Your task to perform on an android device: change your default location settings in chrome Image 0: 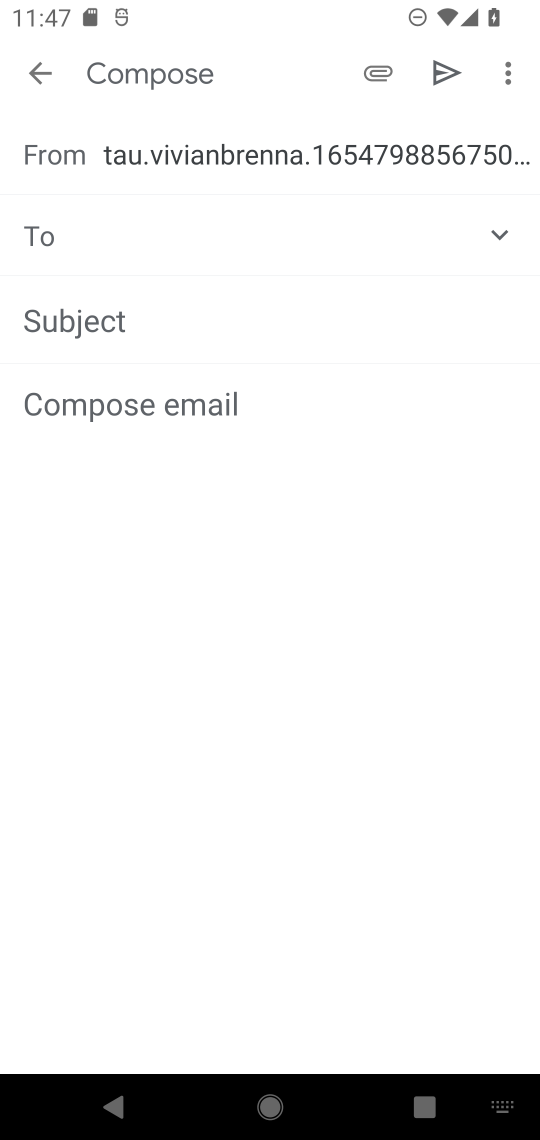
Step 0: press home button
Your task to perform on an android device: change your default location settings in chrome Image 1: 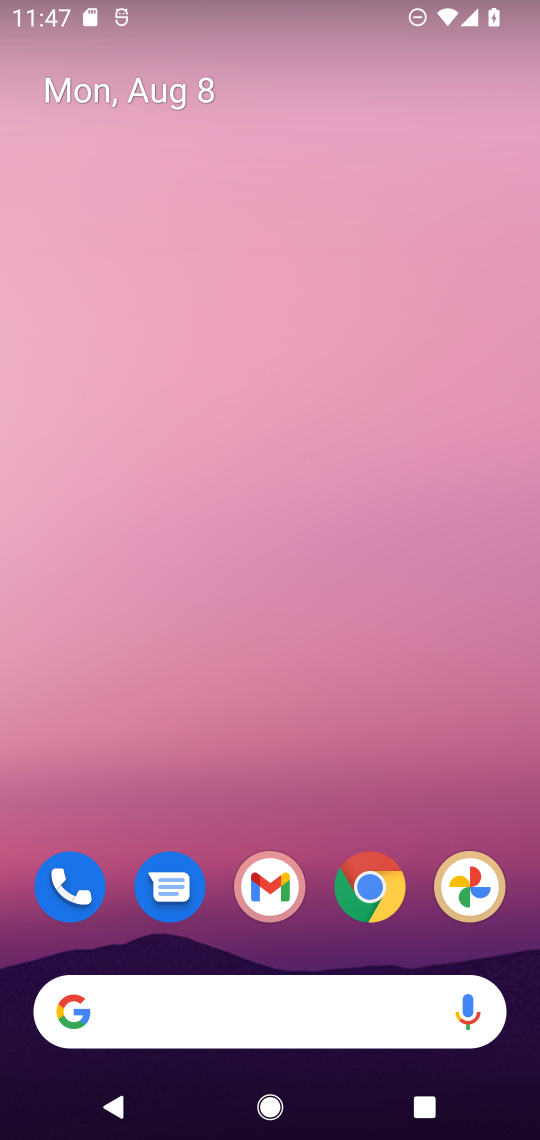
Step 1: click (374, 888)
Your task to perform on an android device: change your default location settings in chrome Image 2: 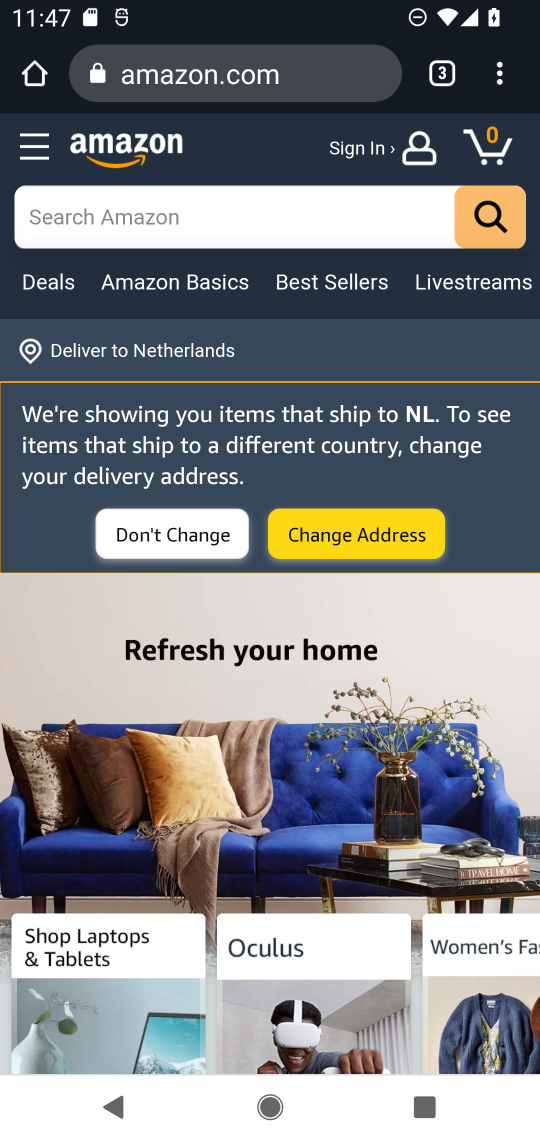
Step 2: click (508, 75)
Your task to perform on an android device: change your default location settings in chrome Image 3: 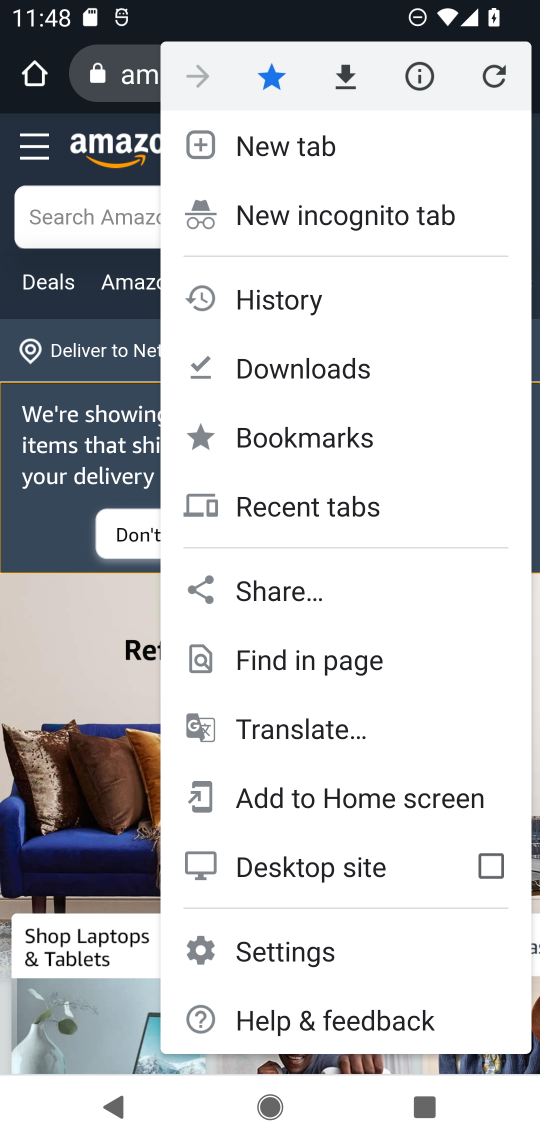
Step 3: click (302, 953)
Your task to perform on an android device: change your default location settings in chrome Image 4: 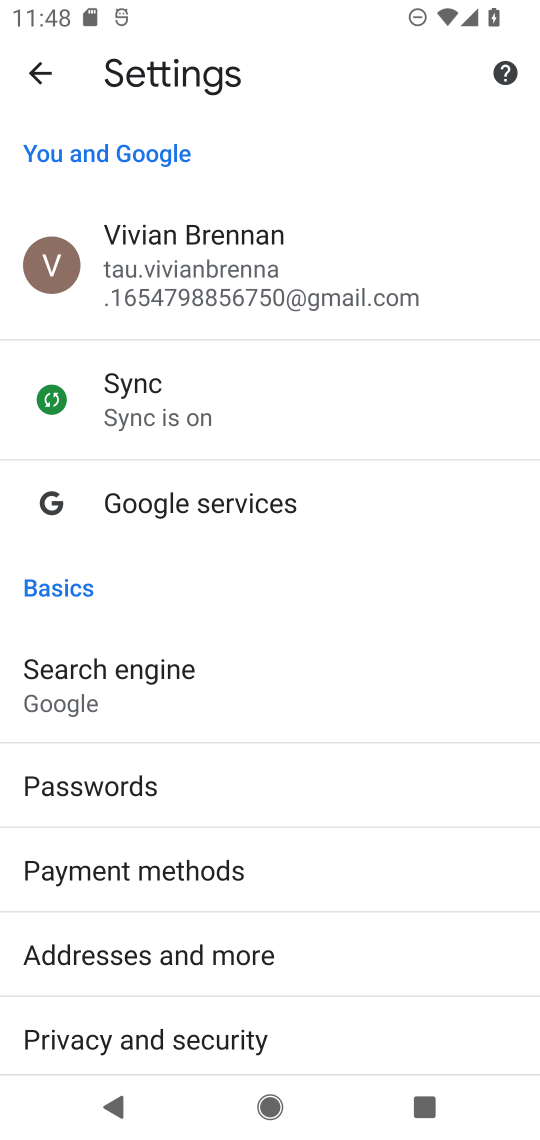
Step 4: drag from (433, 844) to (394, 453)
Your task to perform on an android device: change your default location settings in chrome Image 5: 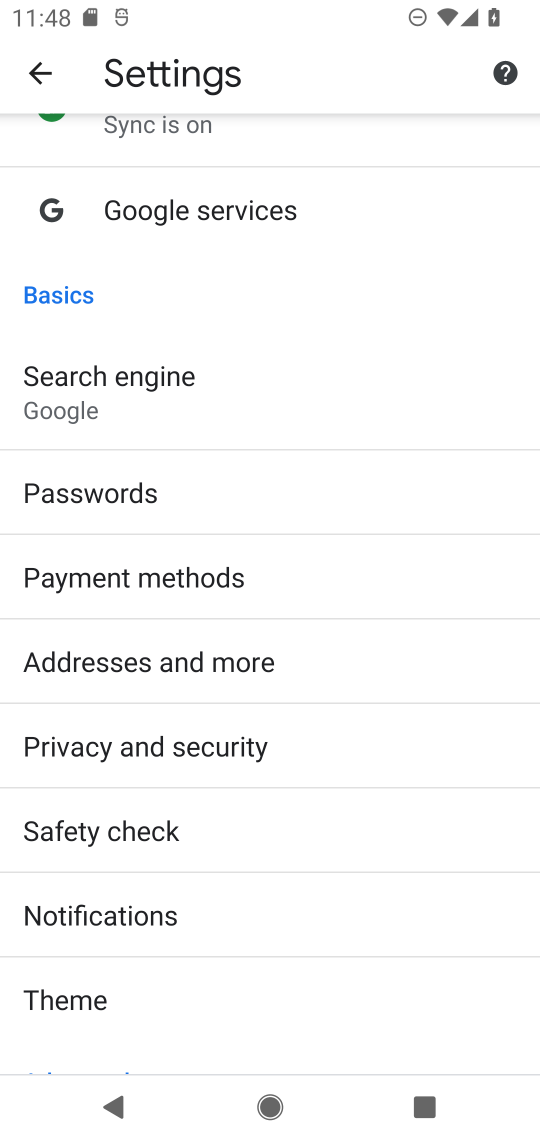
Step 5: drag from (334, 905) to (260, 228)
Your task to perform on an android device: change your default location settings in chrome Image 6: 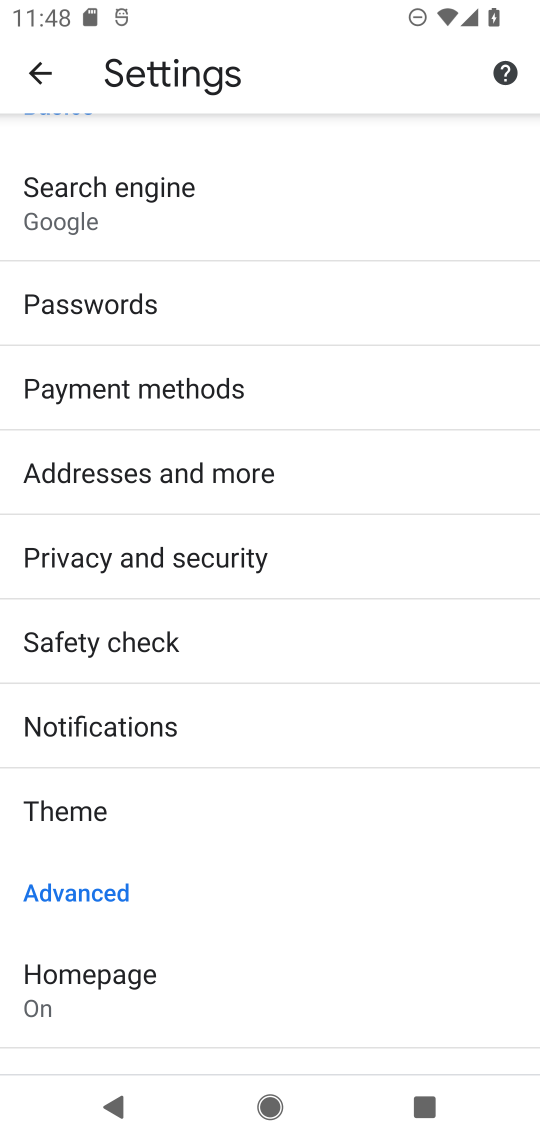
Step 6: drag from (273, 803) to (241, 318)
Your task to perform on an android device: change your default location settings in chrome Image 7: 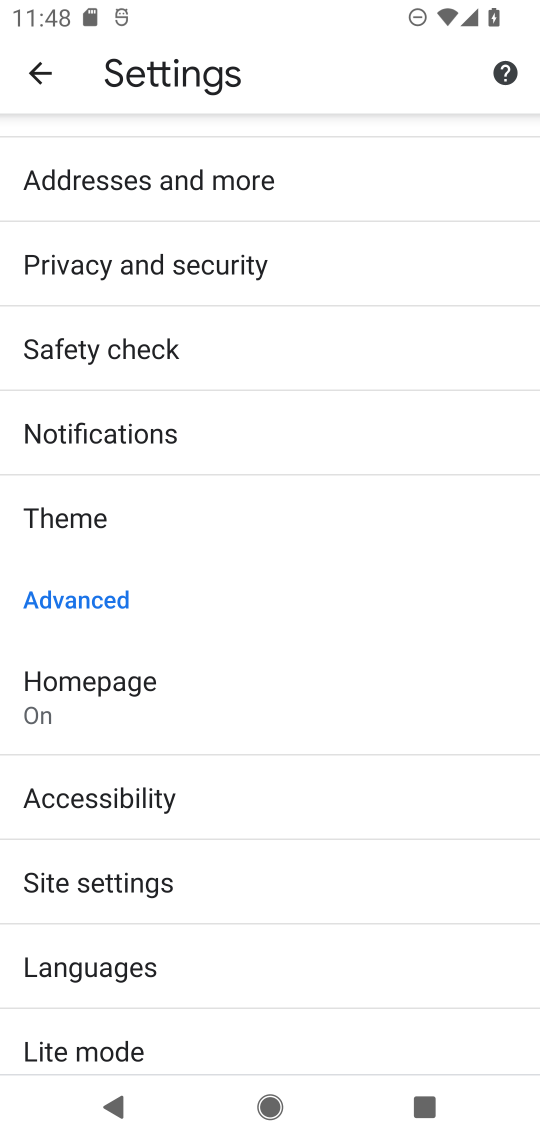
Step 7: click (104, 876)
Your task to perform on an android device: change your default location settings in chrome Image 8: 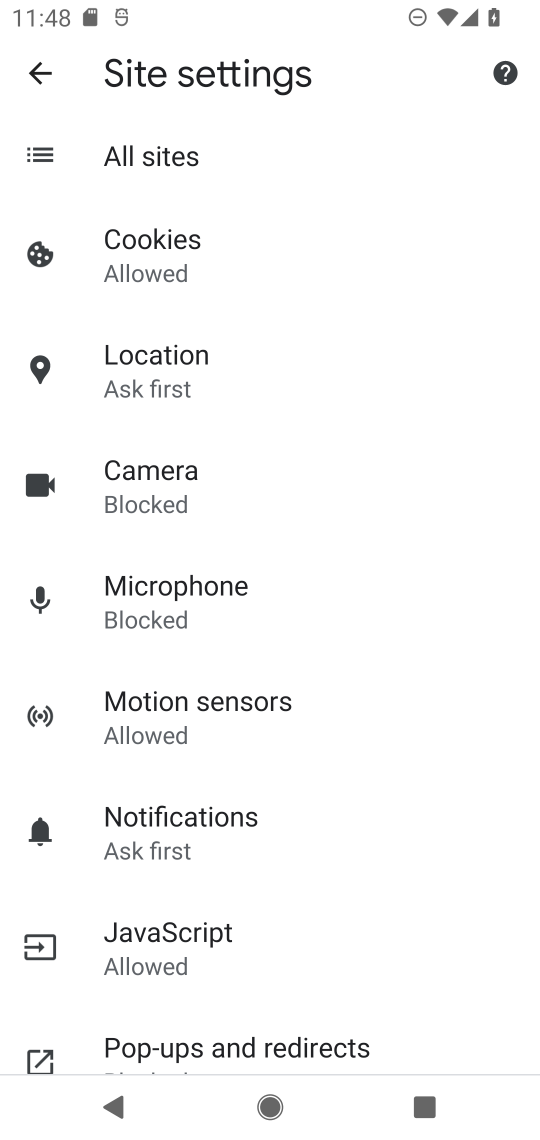
Step 8: click (138, 357)
Your task to perform on an android device: change your default location settings in chrome Image 9: 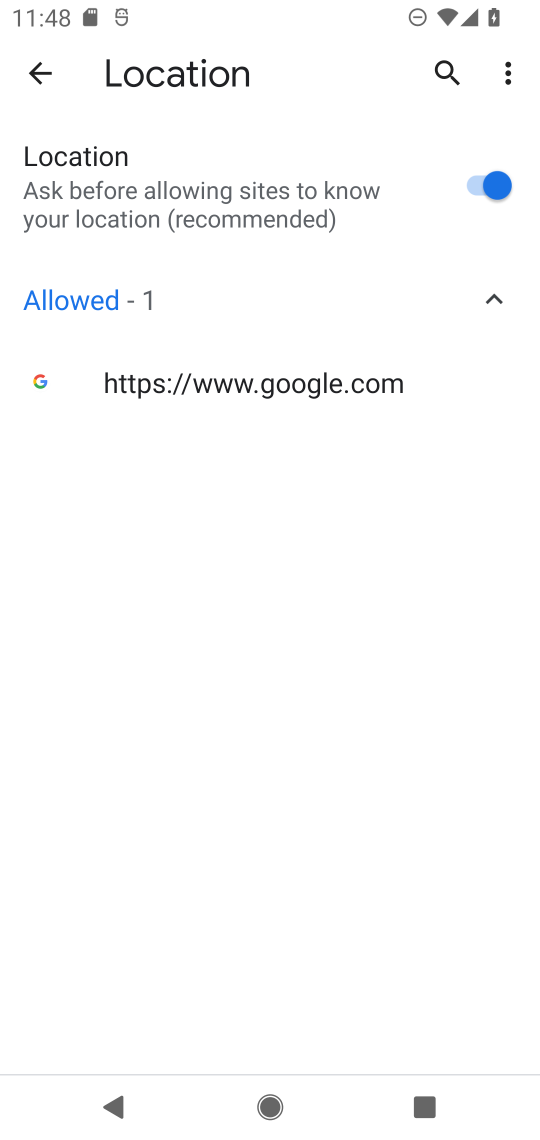
Step 9: click (505, 173)
Your task to perform on an android device: change your default location settings in chrome Image 10: 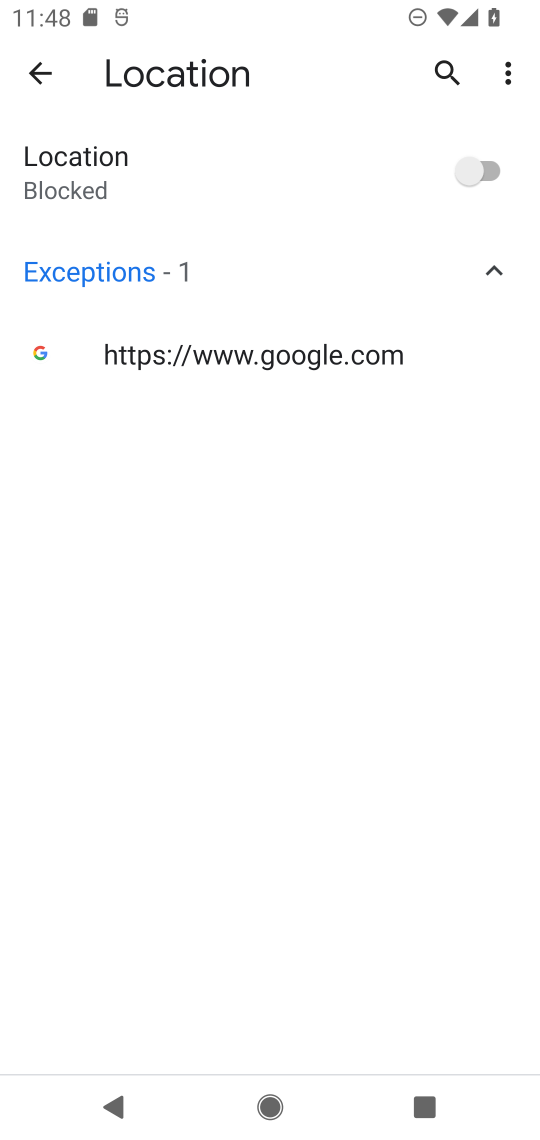
Step 10: task complete